Your task to perform on an android device: Show me recent news Image 0: 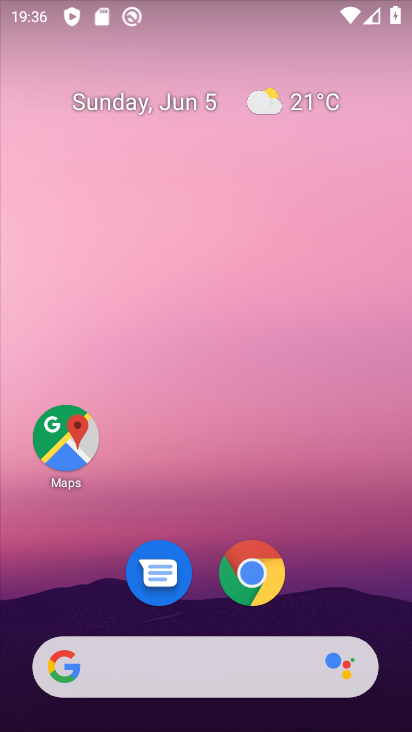
Step 0: click (204, 672)
Your task to perform on an android device: Show me recent news Image 1: 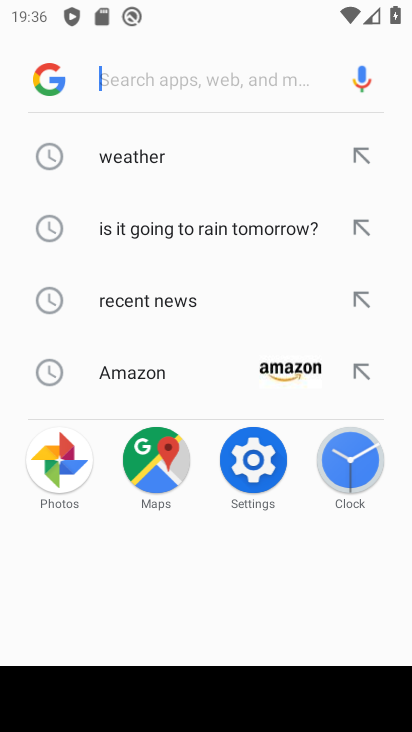
Step 1: type "recent news"
Your task to perform on an android device: Show me recent news Image 2: 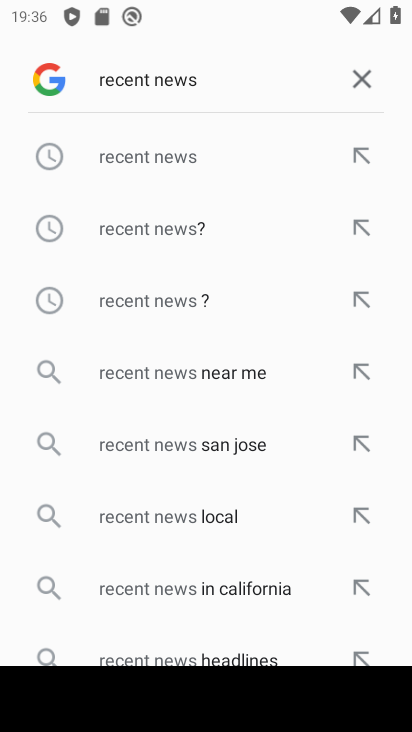
Step 2: click (153, 155)
Your task to perform on an android device: Show me recent news Image 3: 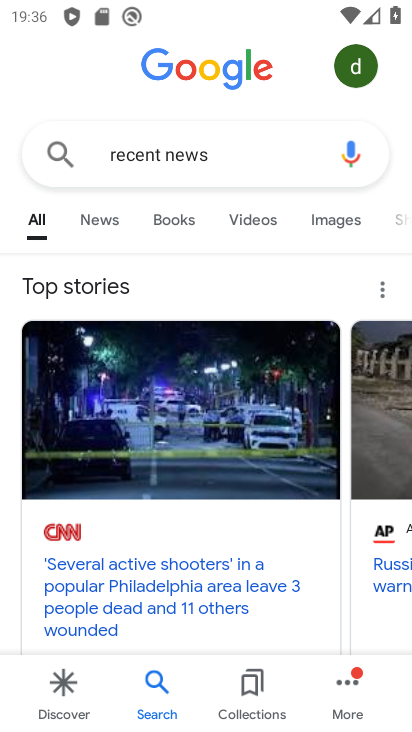
Step 3: click (102, 205)
Your task to perform on an android device: Show me recent news Image 4: 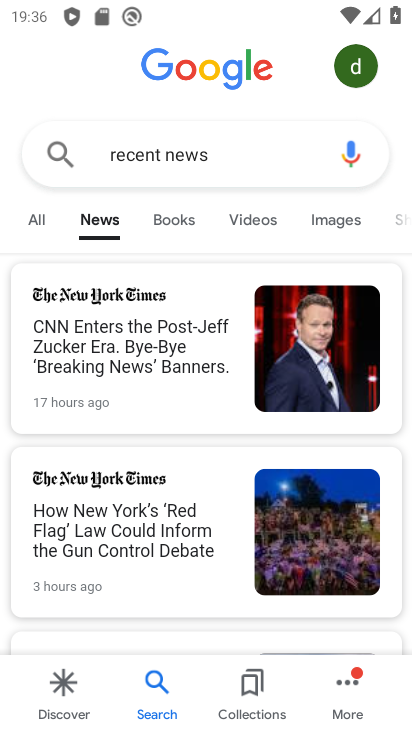
Step 4: task complete